Your task to perform on an android device: Go to Wikipedia Image 0: 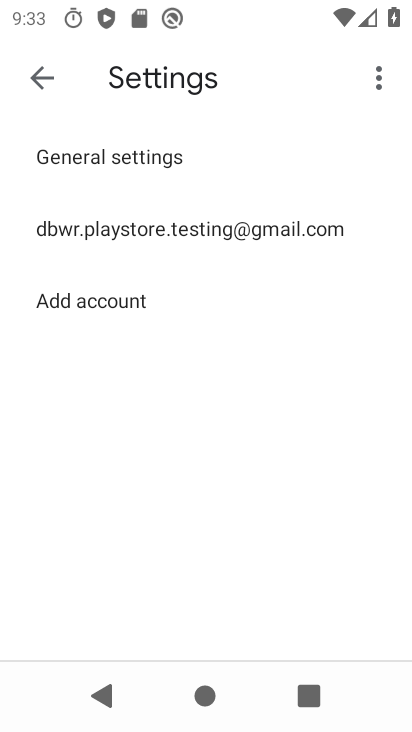
Step 0: press home button
Your task to perform on an android device: Go to Wikipedia Image 1: 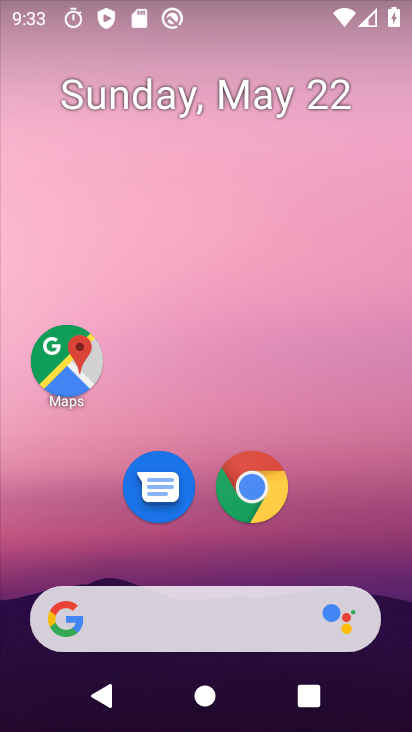
Step 1: drag from (313, 526) to (337, 116)
Your task to perform on an android device: Go to Wikipedia Image 2: 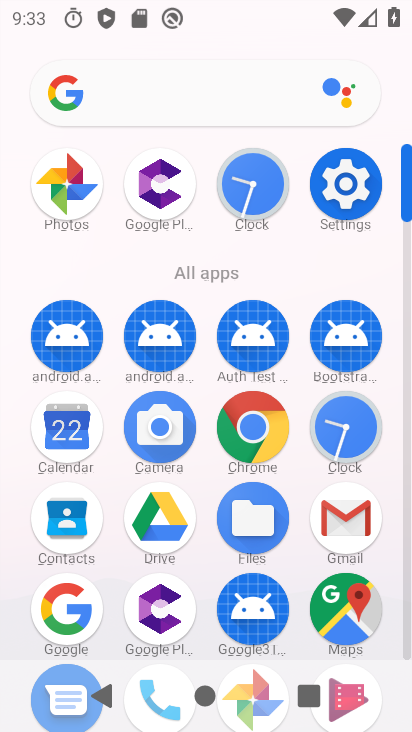
Step 2: click (252, 427)
Your task to perform on an android device: Go to Wikipedia Image 3: 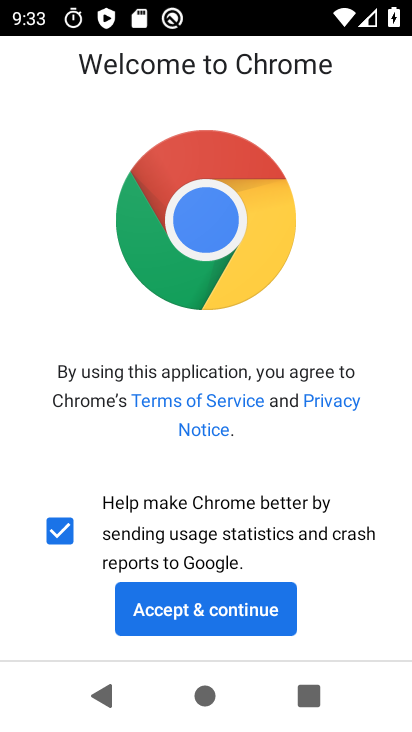
Step 3: click (232, 607)
Your task to perform on an android device: Go to Wikipedia Image 4: 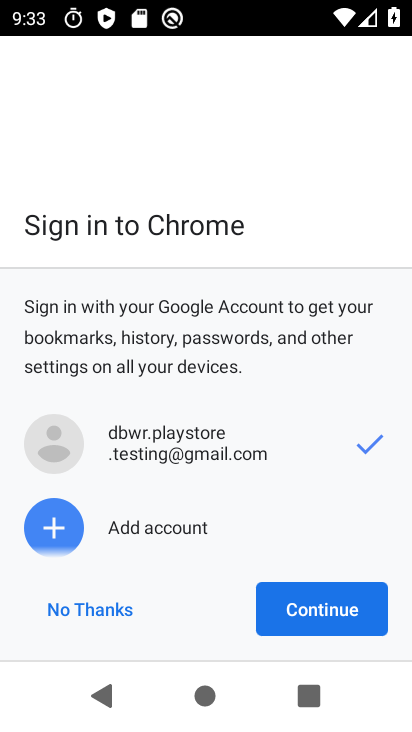
Step 4: click (297, 608)
Your task to perform on an android device: Go to Wikipedia Image 5: 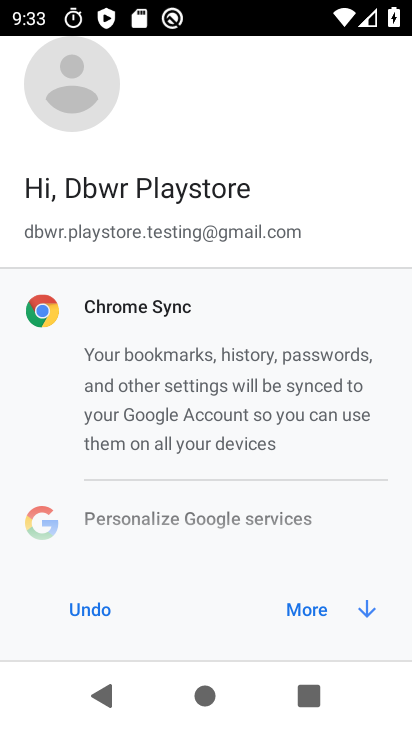
Step 5: click (297, 608)
Your task to perform on an android device: Go to Wikipedia Image 6: 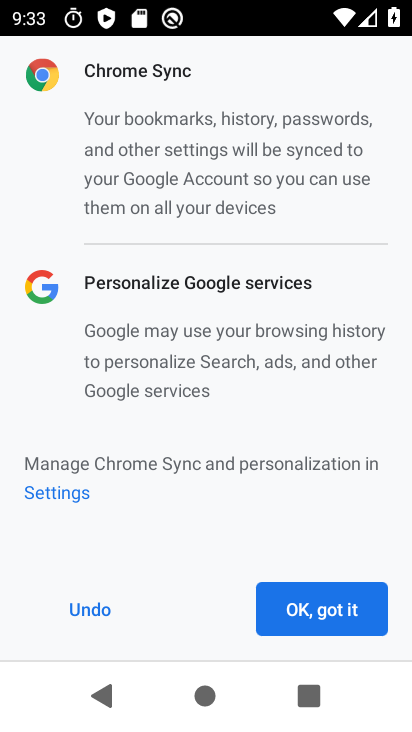
Step 6: click (297, 608)
Your task to perform on an android device: Go to Wikipedia Image 7: 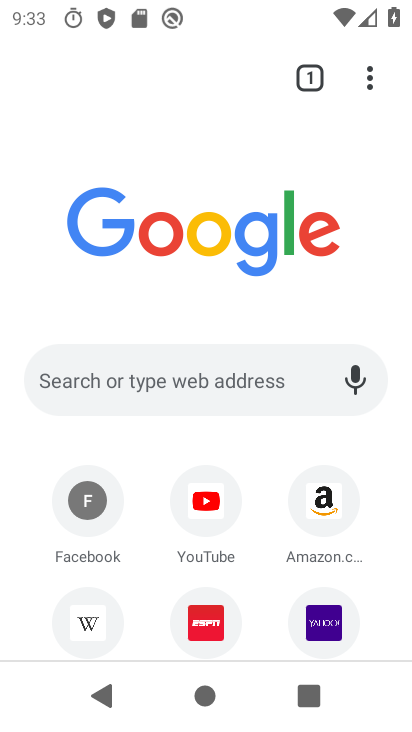
Step 7: click (100, 629)
Your task to perform on an android device: Go to Wikipedia Image 8: 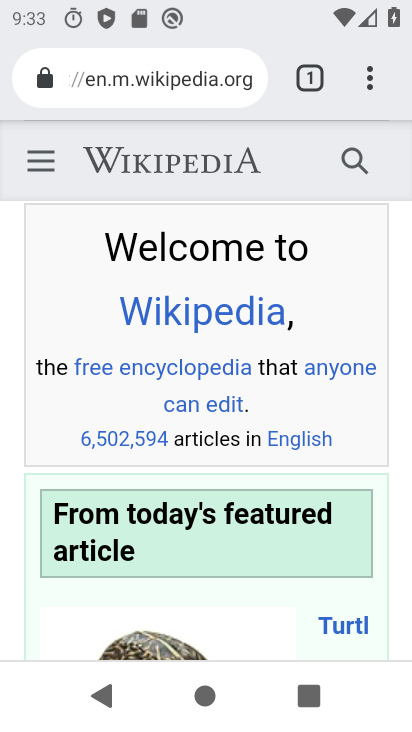
Step 8: task complete